Your task to perform on an android device: change the upload size in google photos Image 0: 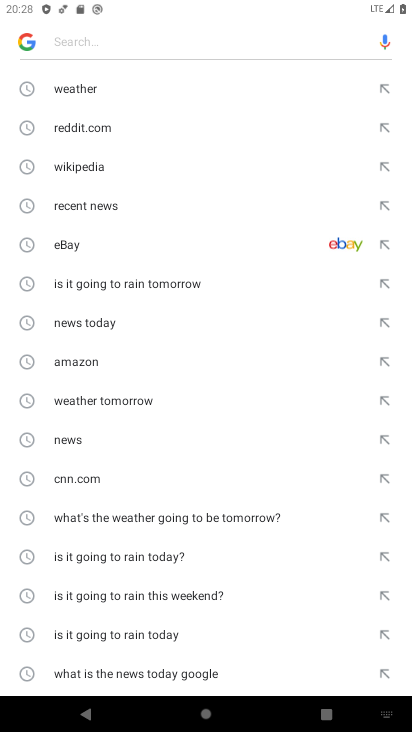
Step 0: press home button
Your task to perform on an android device: change the upload size in google photos Image 1: 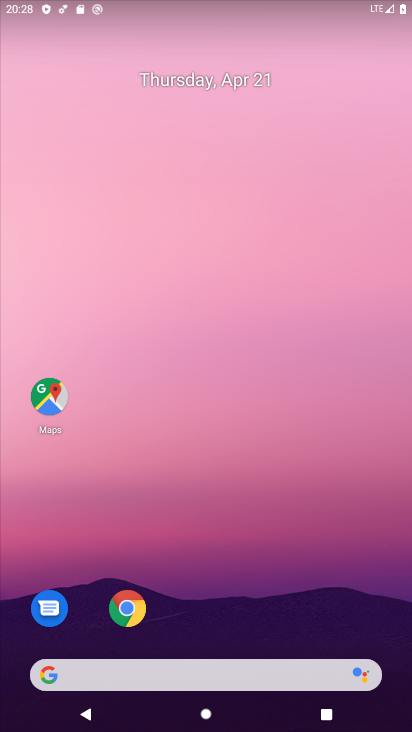
Step 1: drag from (159, 620) to (170, 196)
Your task to perform on an android device: change the upload size in google photos Image 2: 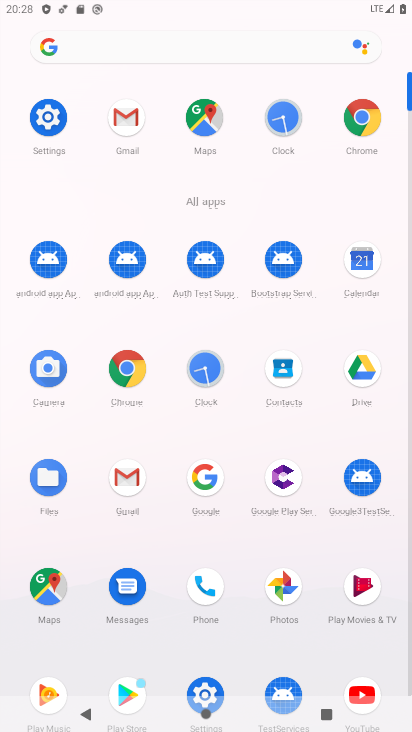
Step 2: click (282, 574)
Your task to perform on an android device: change the upload size in google photos Image 3: 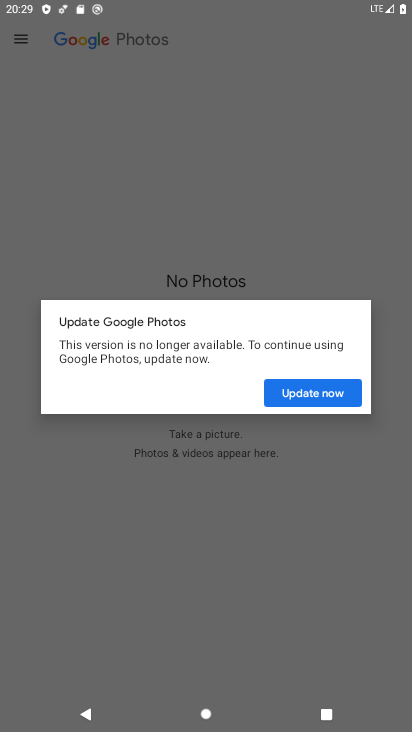
Step 3: click (318, 410)
Your task to perform on an android device: change the upload size in google photos Image 4: 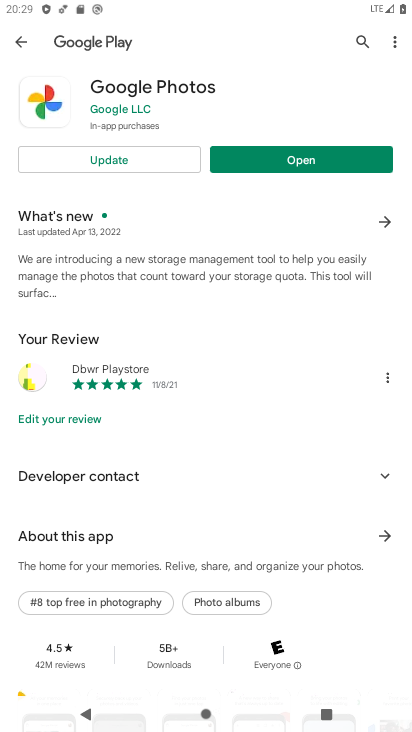
Step 4: click (297, 161)
Your task to perform on an android device: change the upload size in google photos Image 5: 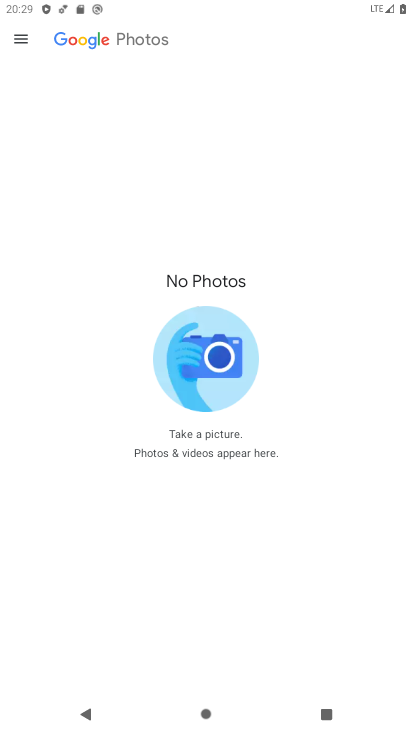
Step 5: click (19, 36)
Your task to perform on an android device: change the upload size in google photos Image 6: 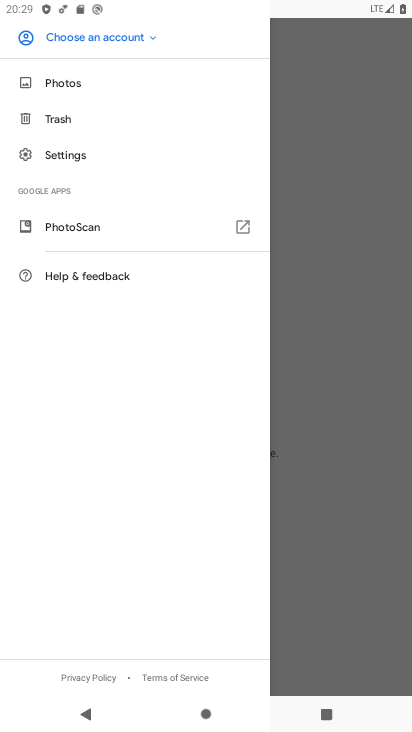
Step 6: click (138, 158)
Your task to perform on an android device: change the upload size in google photos Image 7: 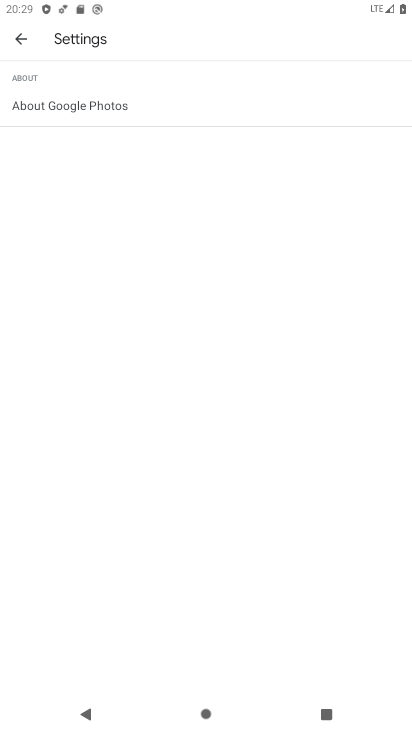
Step 7: click (20, 48)
Your task to perform on an android device: change the upload size in google photos Image 8: 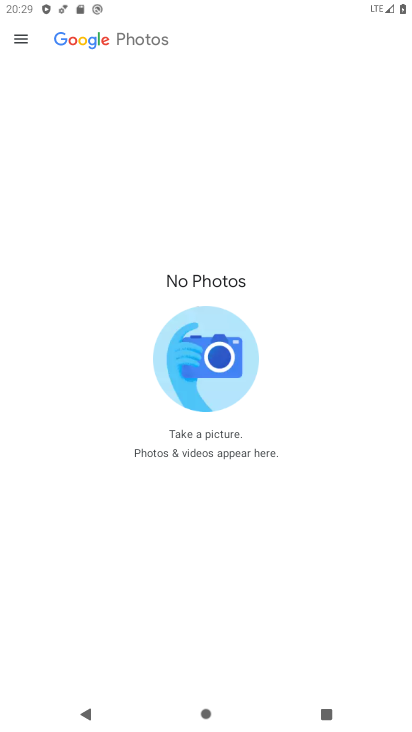
Step 8: click (20, 48)
Your task to perform on an android device: change the upload size in google photos Image 9: 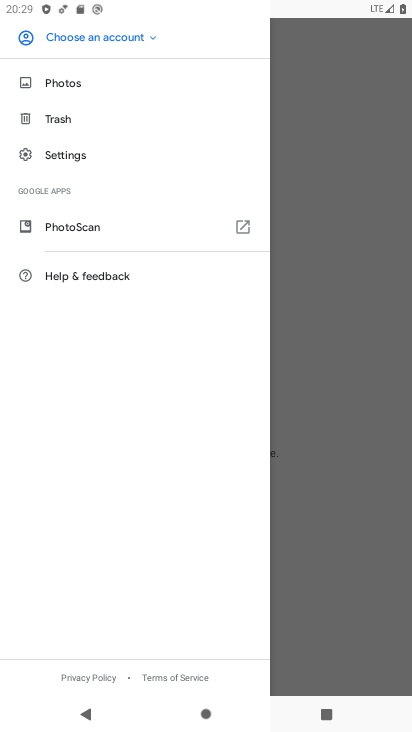
Step 9: click (106, 47)
Your task to perform on an android device: change the upload size in google photos Image 10: 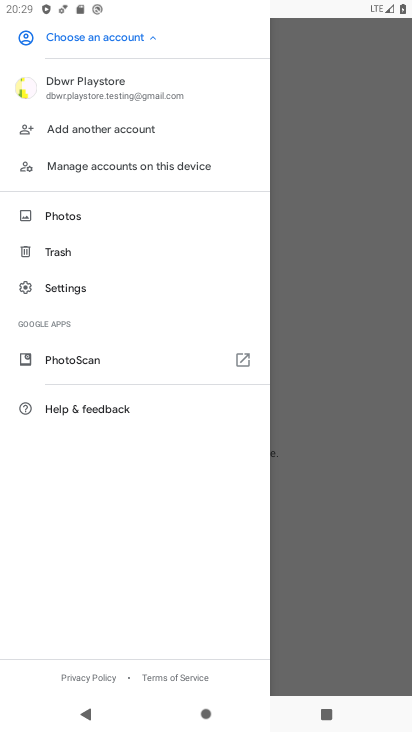
Step 10: click (112, 88)
Your task to perform on an android device: change the upload size in google photos Image 11: 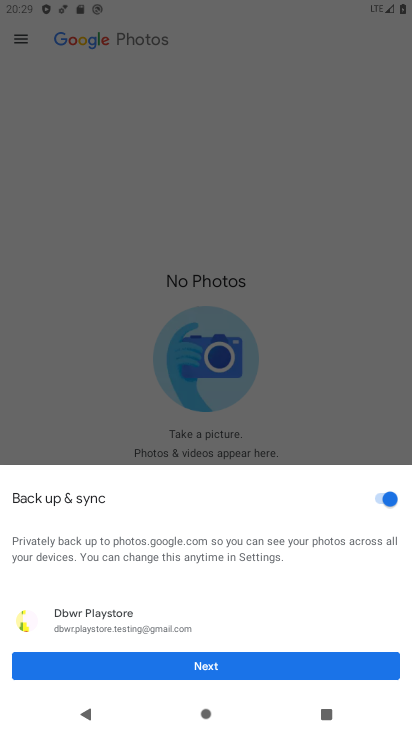
Step 11: click (98, 531)
Your task to perform on an android device: change the upload size in google photos Image 12: 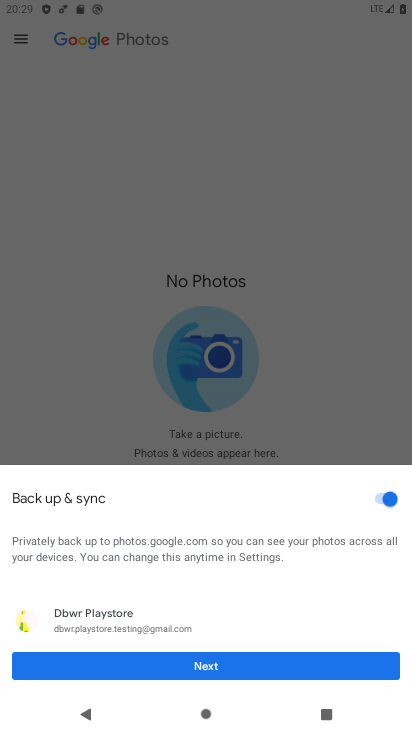
Step 12: click (237, 670)
Your task to perform on an android device: change the upload size in google photos Image 13: 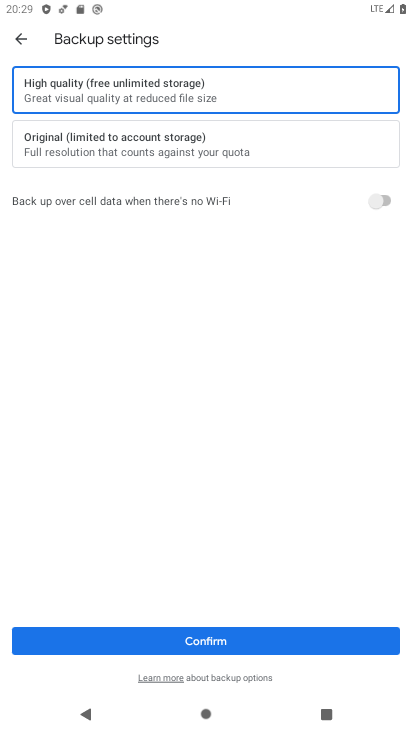
Step 13: click (79, 159)
Your task to perform on an android device: change the upload size in google photos Image 14: 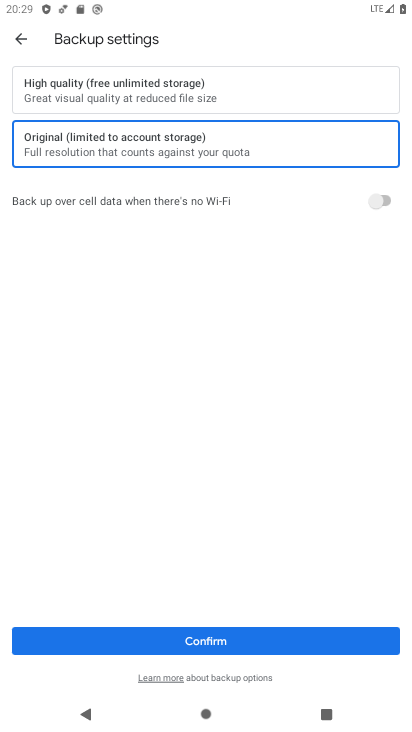
Step 14: task complete